Your task to perform on an android device: find photos in the google photos app Image 0: 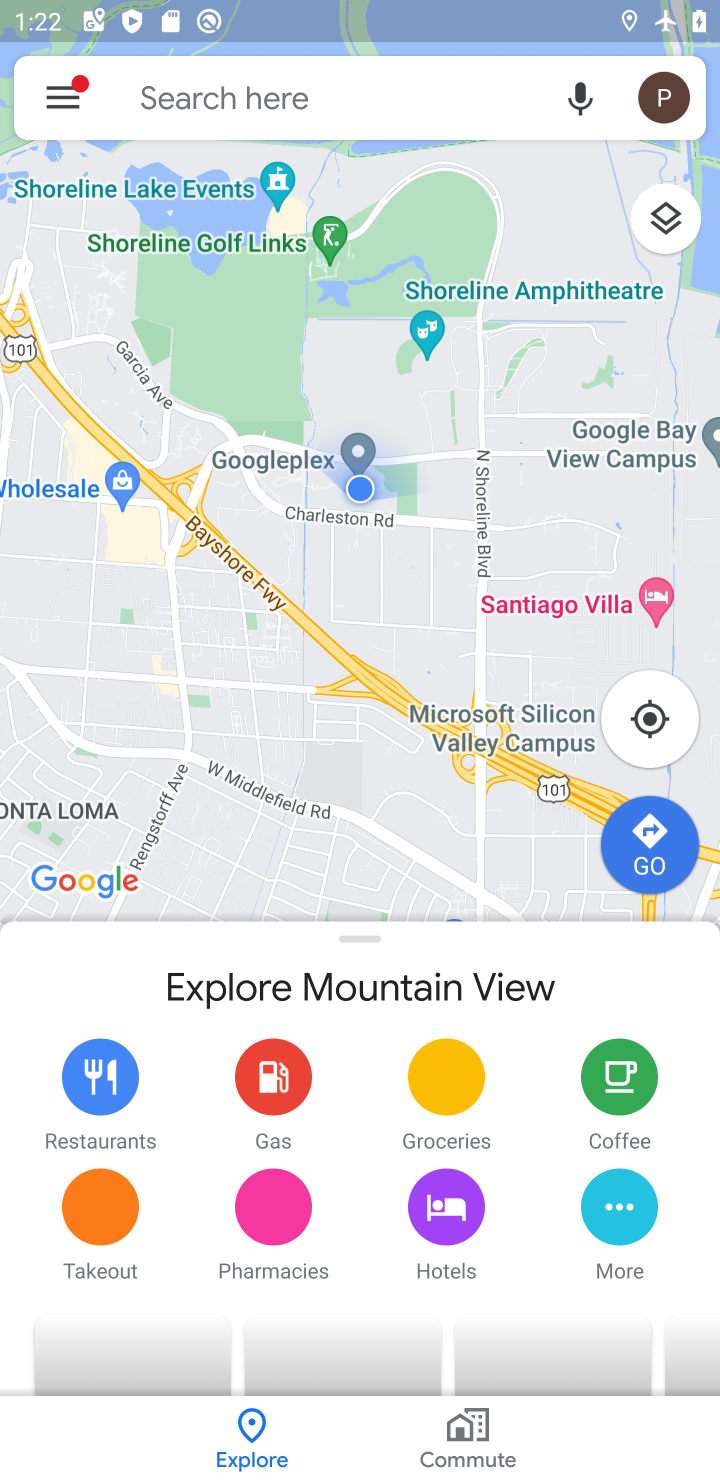
Step 0: press home button
Your task to perform on an android device: find photos in the google photos app Image 1: 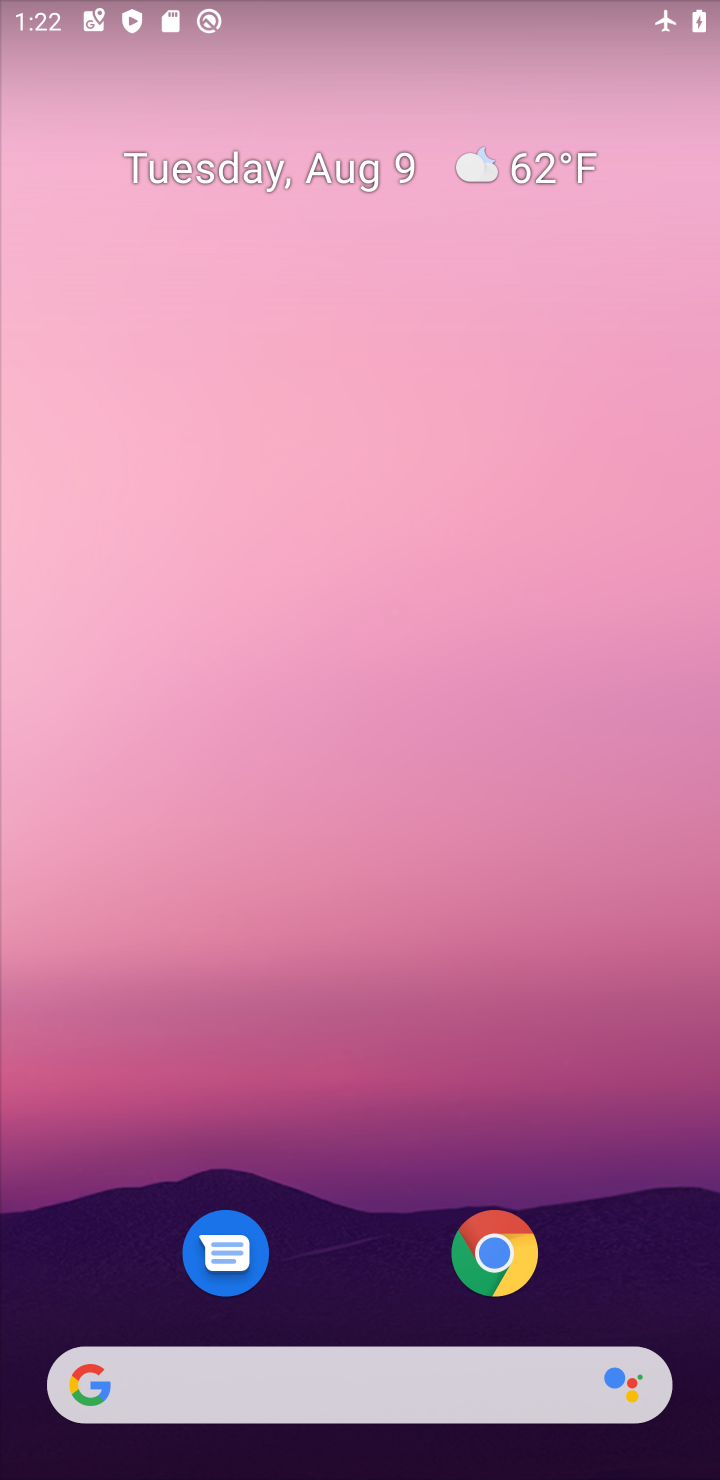
Step 1: drag from (436, 402) to (292, 12)
Your task to perform on an android device: find photos in the google photos app Image 2: 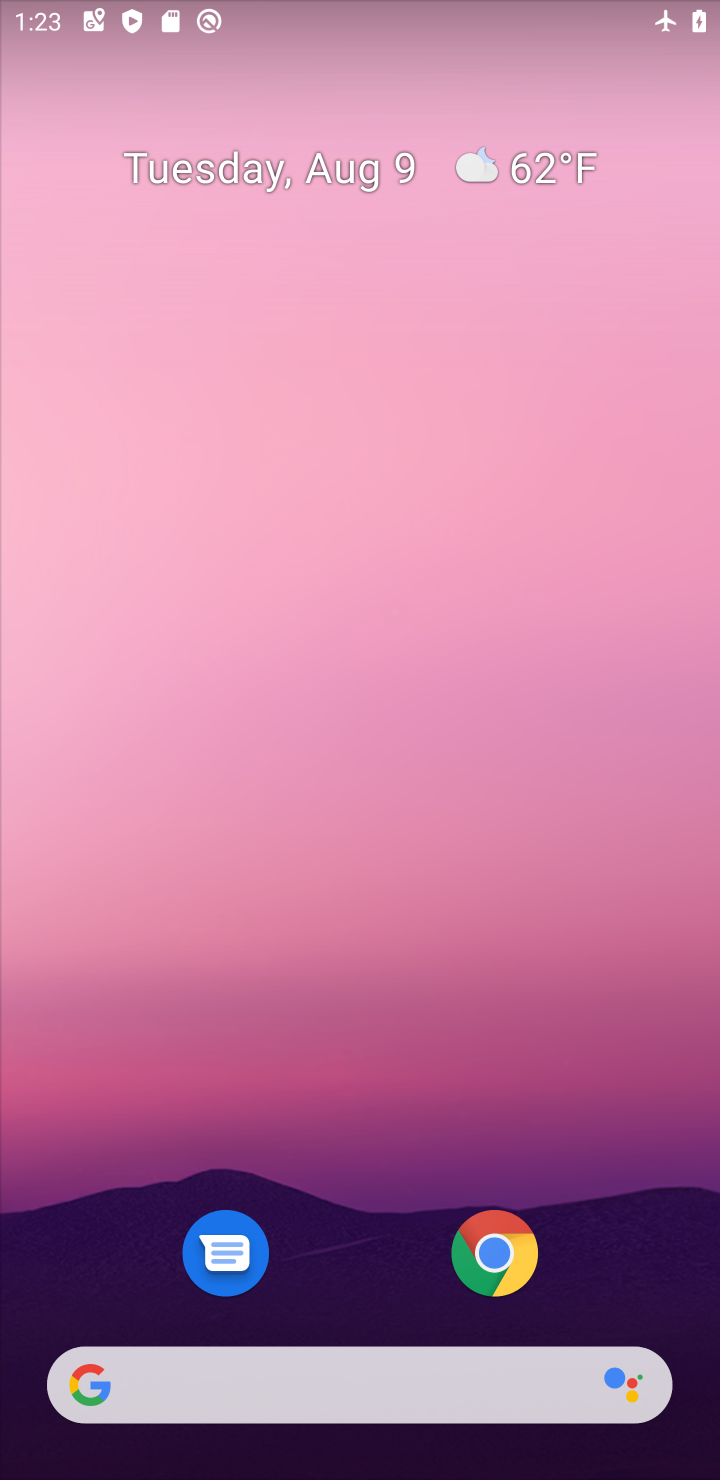
Step 2: drag from (583, 1136) to (155, 93)
Your task to perform on an android device: find photos in the google photos app Image 3: 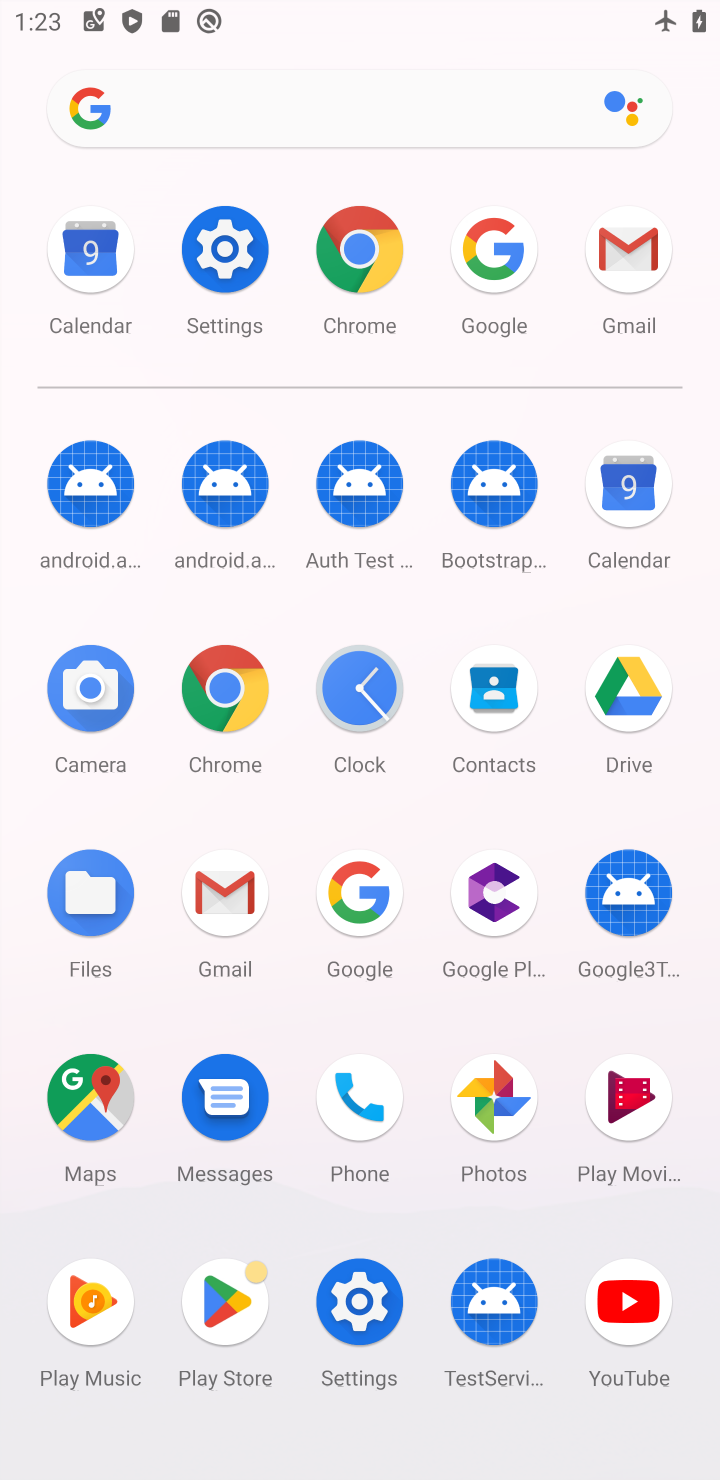
Step 3: click (499, 1098)
Your task to perform on an android device: find photos in the google photos app Image 4: 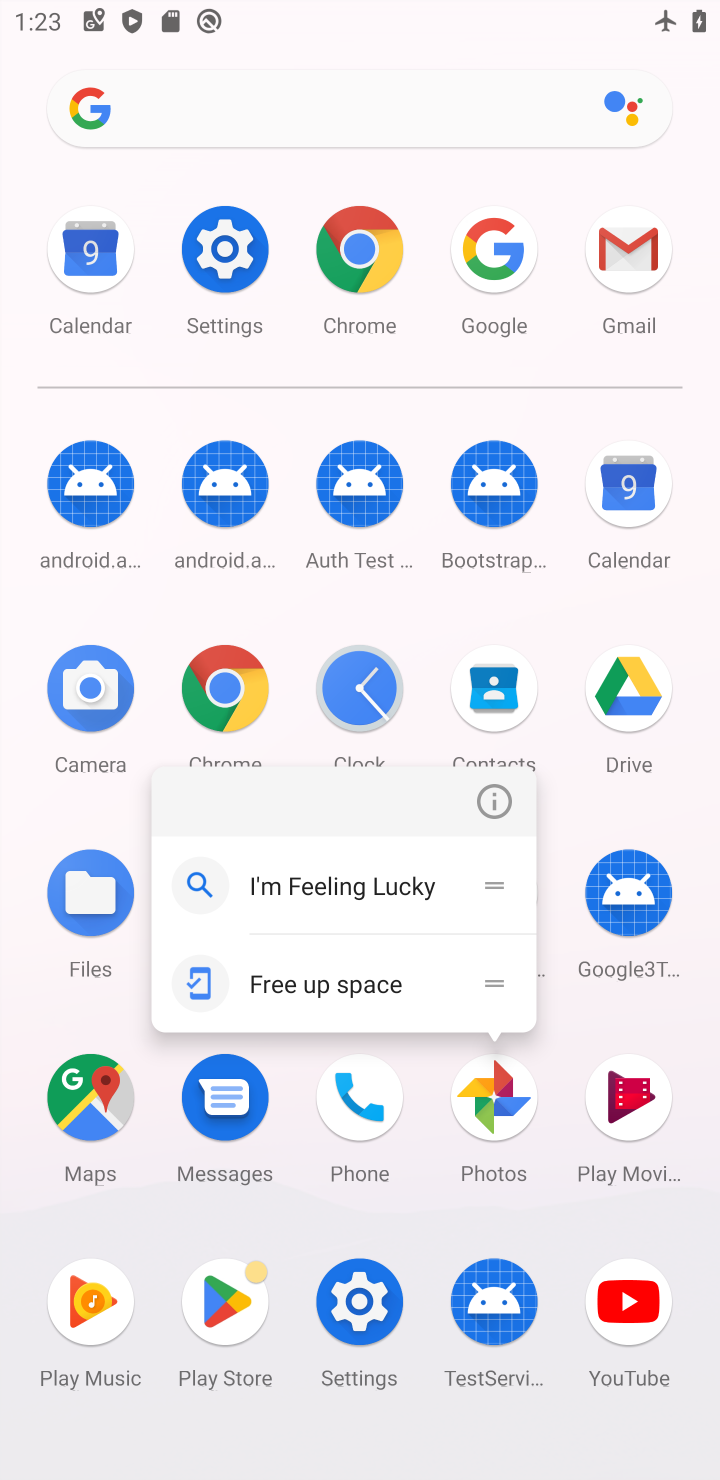
Step 4: click (499, 1125)
Your task to perform on an android device: find photos in the google photos app Image 5: 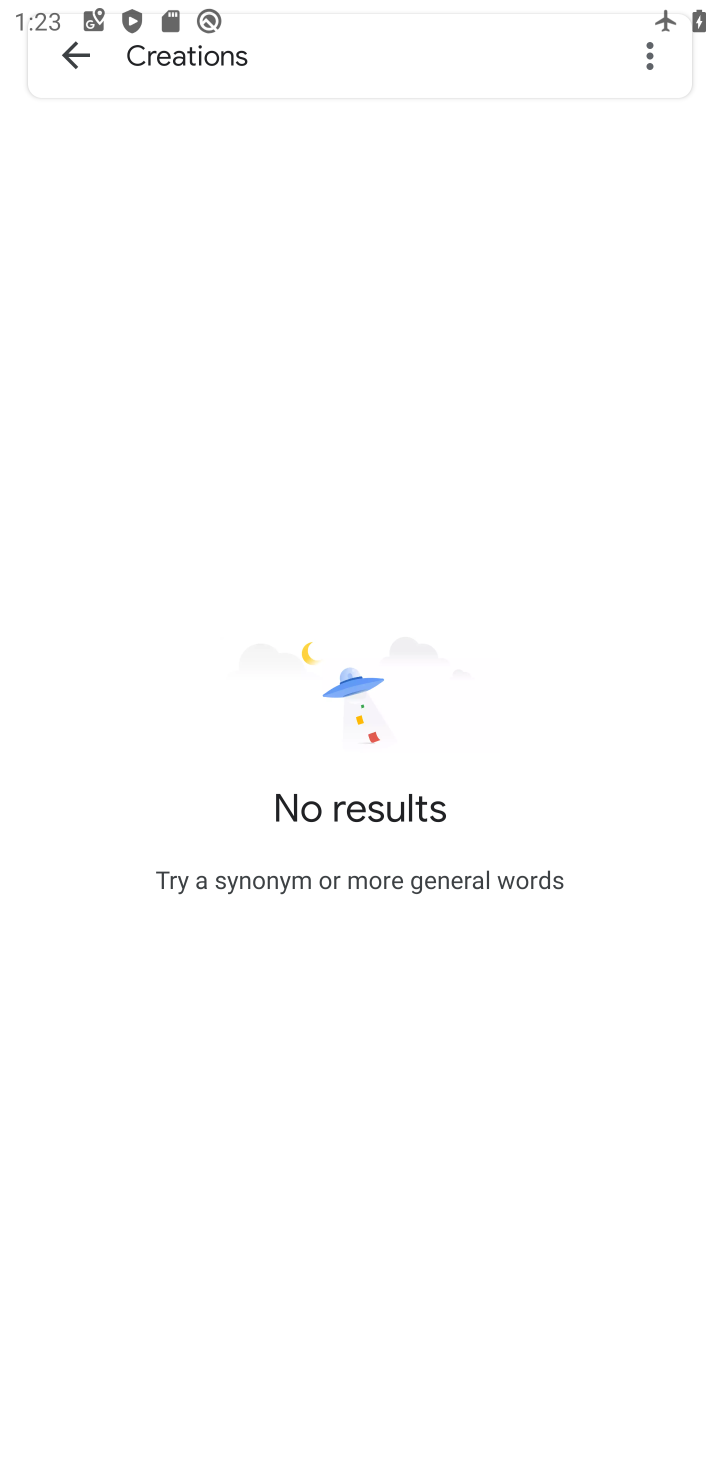
Step 5: task complete